Your task to perform on an android device: Search for sushi restaurants on Maps Image 0: 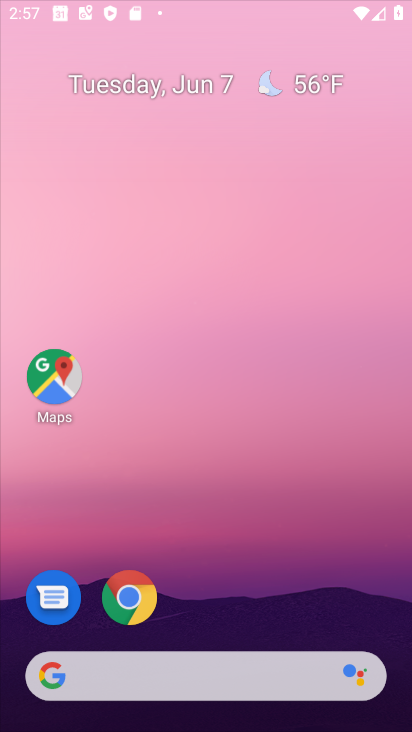
Step 0: press home button
Your task to perform on an android device: Search for sushi restaurants on Maps Image 1: 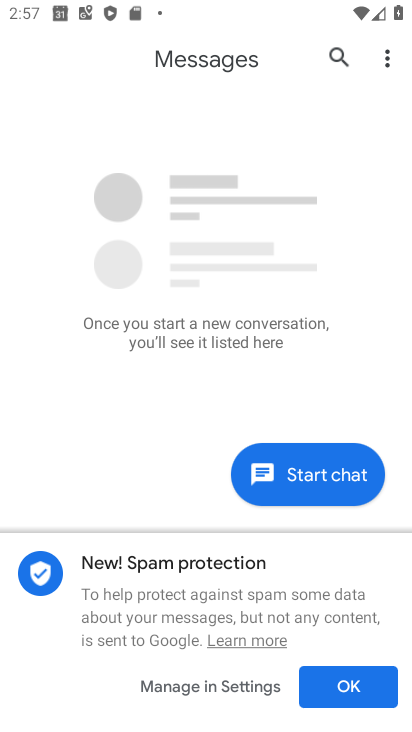
Step 1: drag from (381, 359) to (384, 152)
Your task to perform on an android device: Search for sushi restaurants on Maps Image 2: 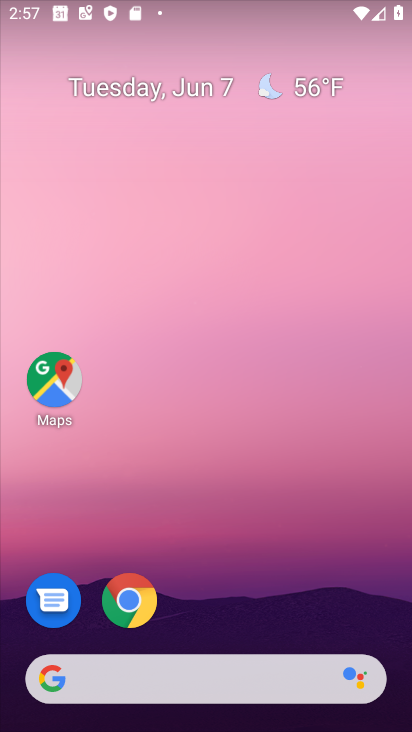
Step 2: click (20, 400)
Your task to perform on an android device: Search for sushi restaurants on Maps Image 3: 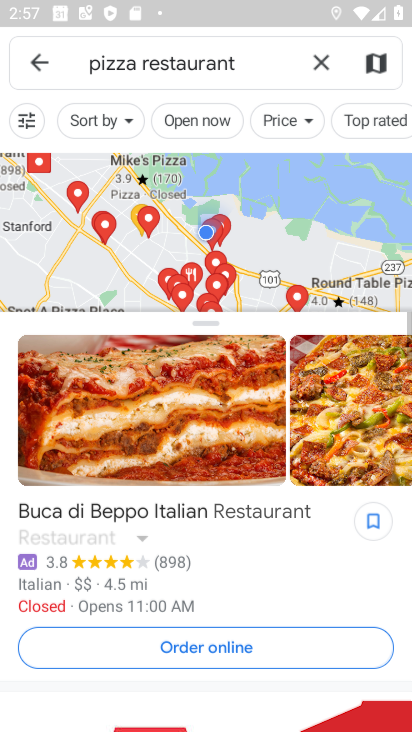
Step 3: click (318, 58)
Your task to perform on an android device: Search for sushi restaurants on Maps Image 4: 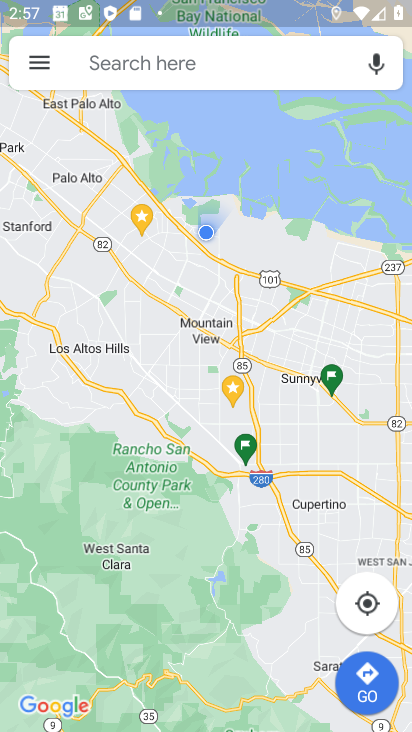
Step 4: click (176, 59)
Your task to perform on an android device: Search for sushi restaurants on Maps Image 5: 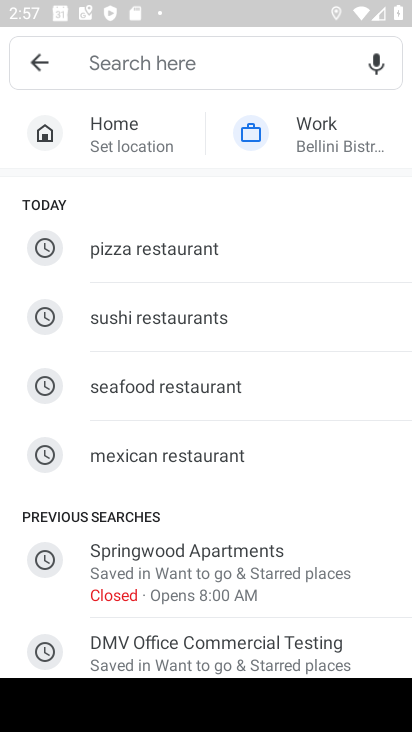
Step 5: type "sushi restaurants"
Your task to perform on an android device: Search for sushi restaurants on Maps Image 6: 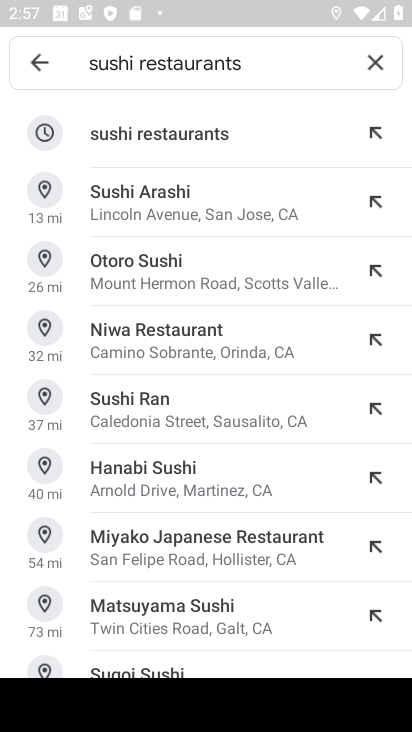
Step 6: click (165, 132)
Your task to perform on an android device: Search for sushi restaurants on Maps Image 7: 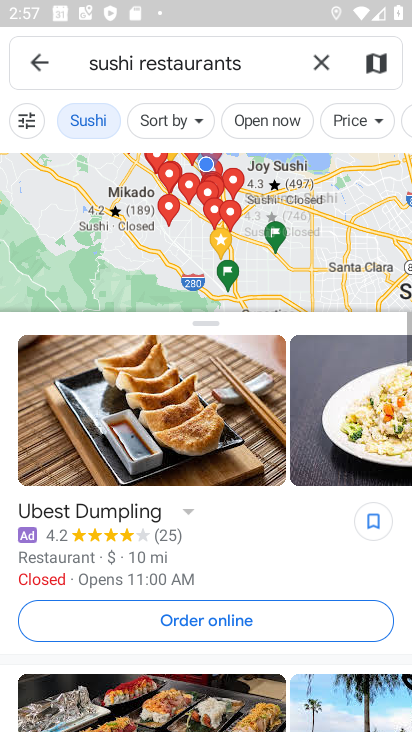
Step 7: task complete